Your task to perform on an android device: Is it going to rain today? Image 0: 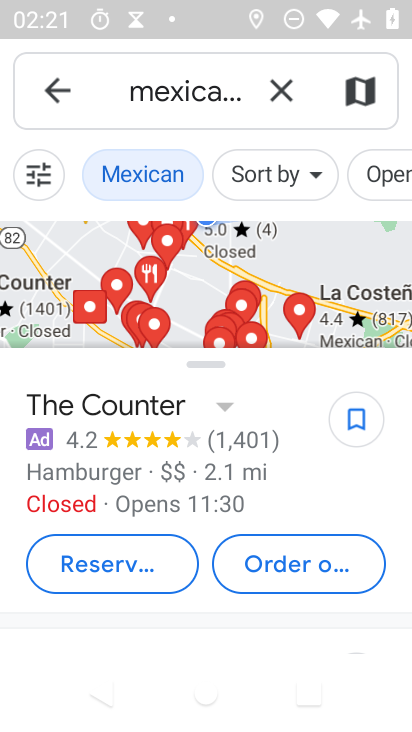
Step 0: press home button
Your task to perform on an android device: Is it going to rain today? Image 1: 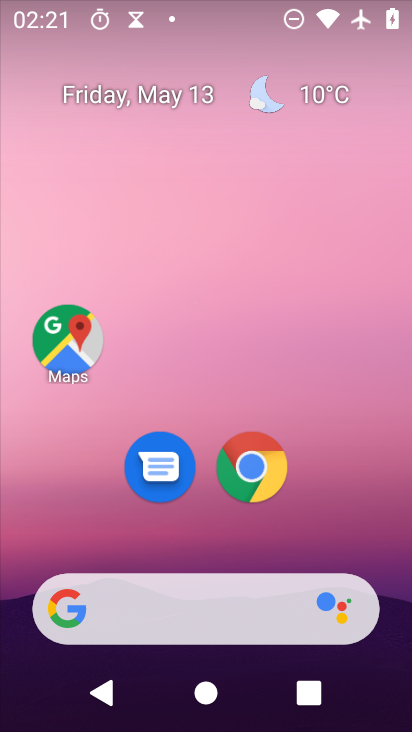
Step 1: click (301, 98)
Your task to perform on an android device: Is it going to rain today? Image 2: 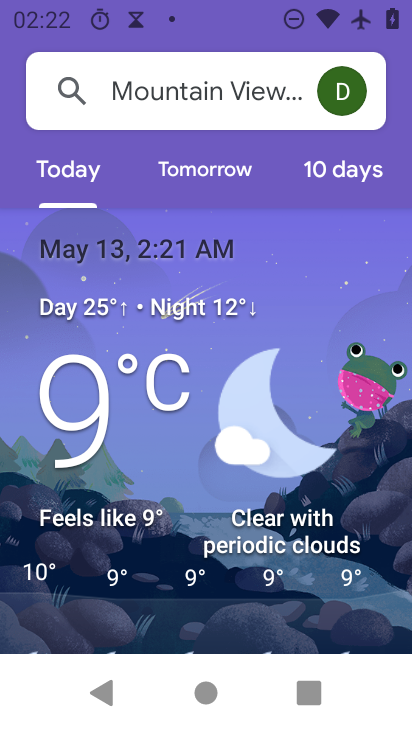
Step 2: task complete